Your task to perform on an android device: turn on notifications settings in the gmail app Image 0: 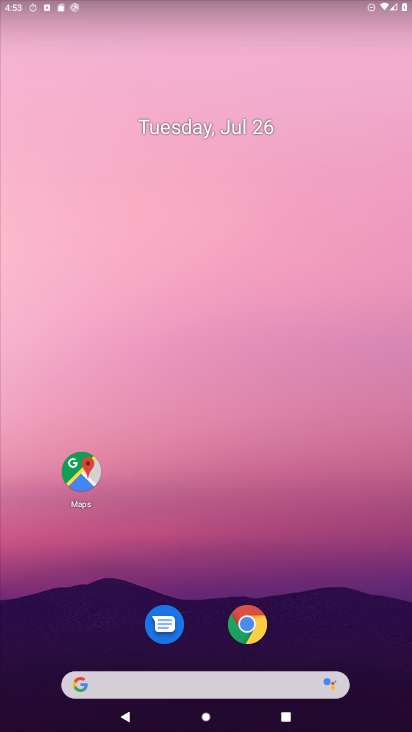
Step 0: drag from (208, 679) to (205, 3)
Your task to perform on an android device: turn on notifications settings in the gmail app Image 1: 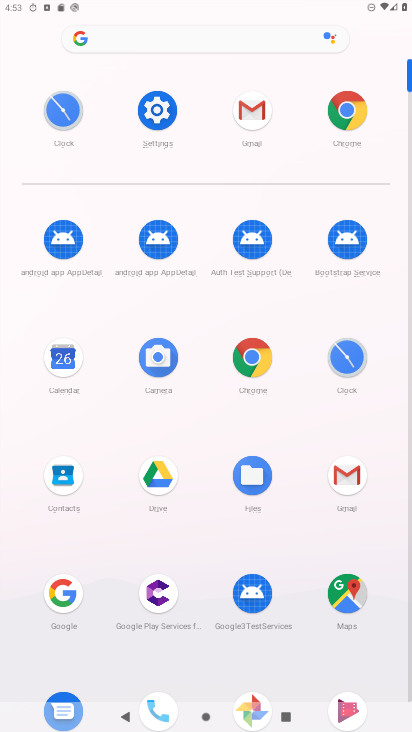
Step 1: click (347, 479)
Your task to perform on an android device: turn on notifications settings in the gmail app Image 2: 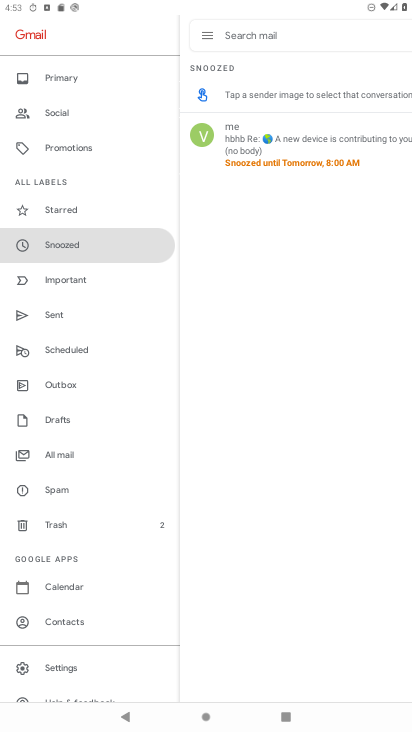
Step 2: drag from (102, 642) to (120, 431)
Your task to perform on an android device: turn on notifications settings in the gmail app Image 3: 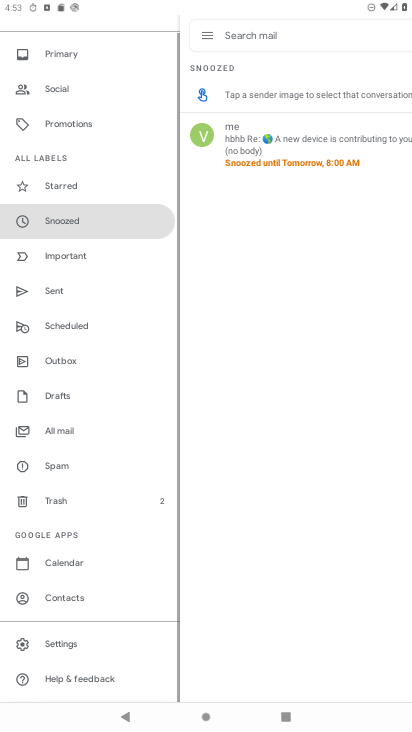
Step 3: click (109, 648)
Your task to perform on an android device: turn on notifications settings in the gmail app Image 4: 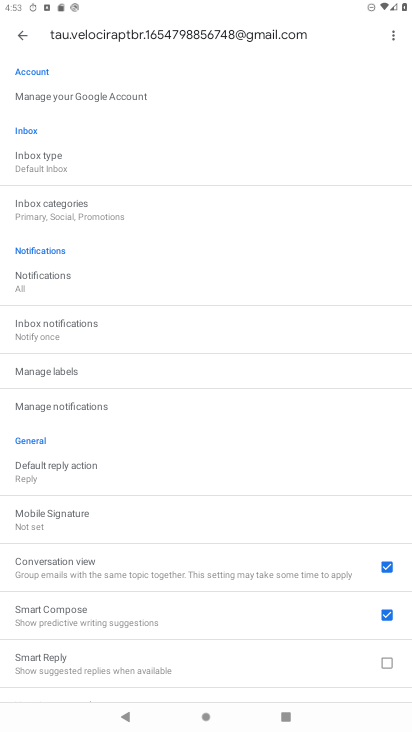
Step 4: click (119, 398)
Your task to perform on an android device: turn on notifications settings in the gmail app Image 5: 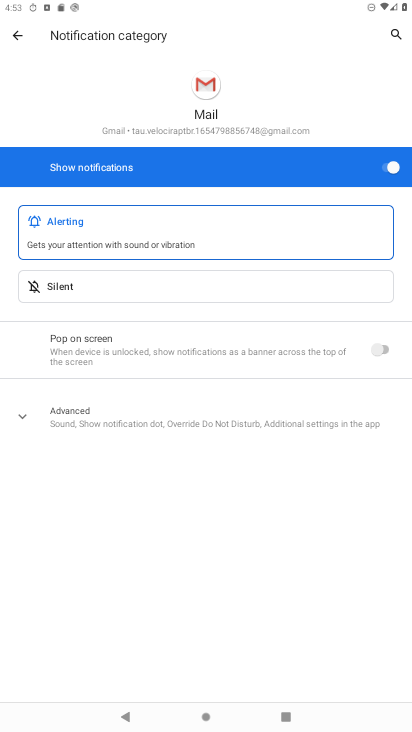
Step 5: task complete